Your task to perform on an android device: check the backup settings in the google photos Image 0: 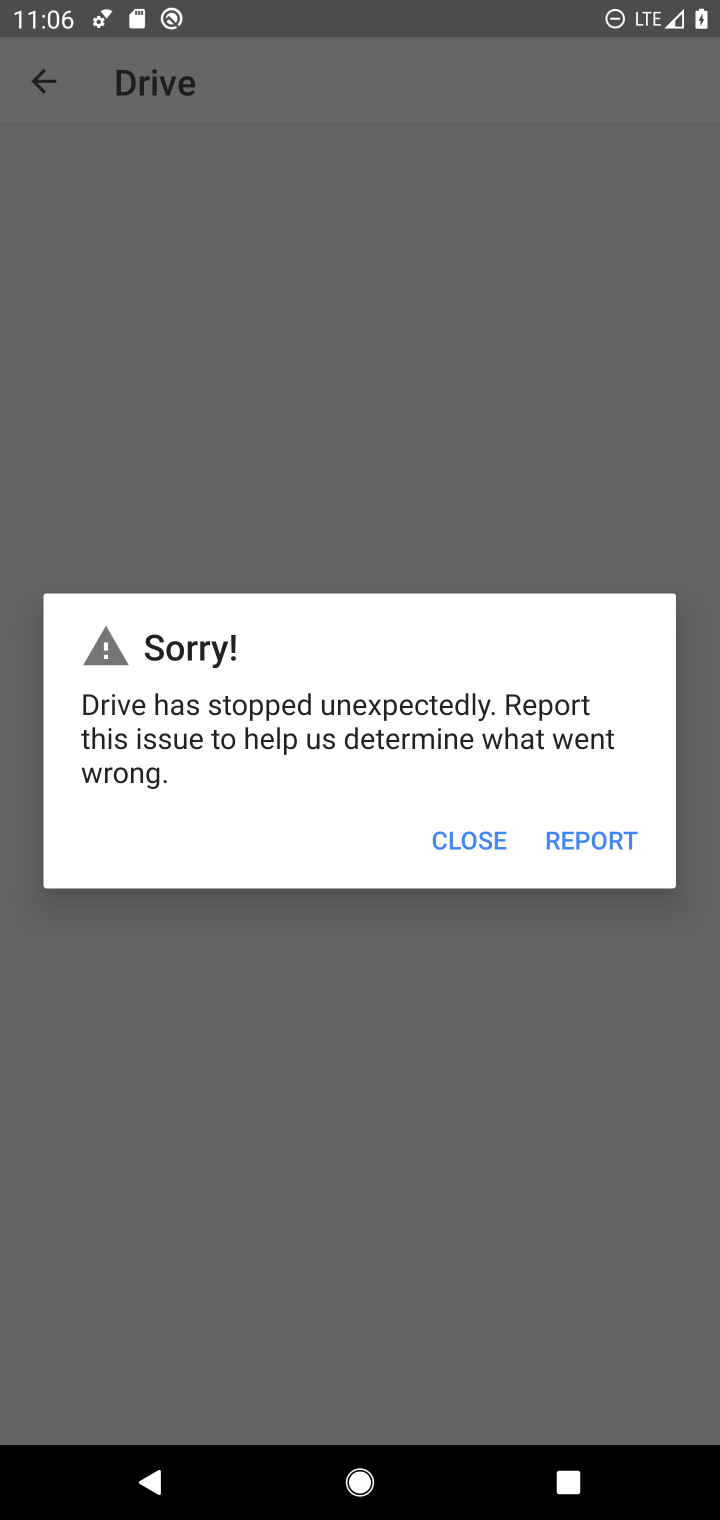
Step 0: press home button
Your task to perform on an android device: check the backup settings in the google photos Image 1: 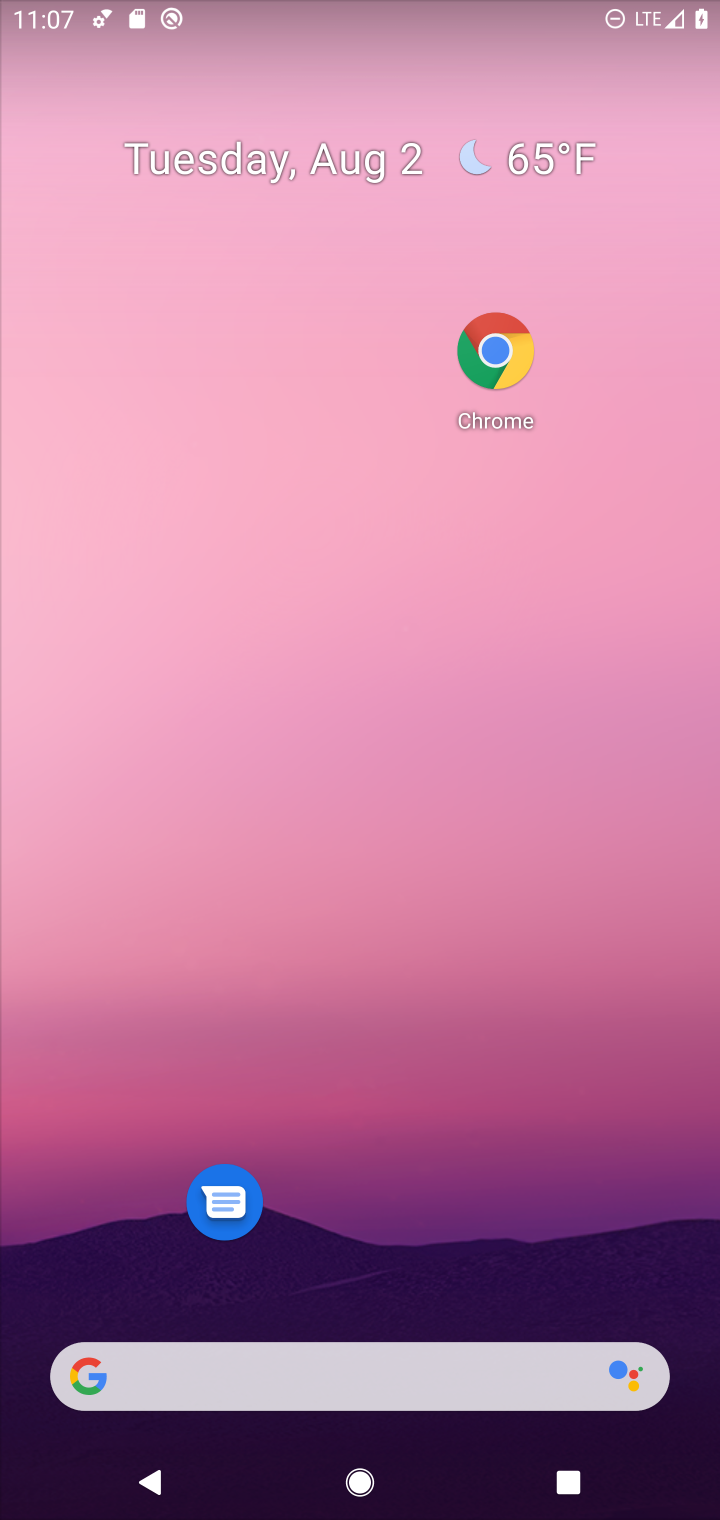
Step 1: drag from (374, 1219) to (302, 150)
Your task to perform on an android device: check the backup settings in the google photos Image 2: 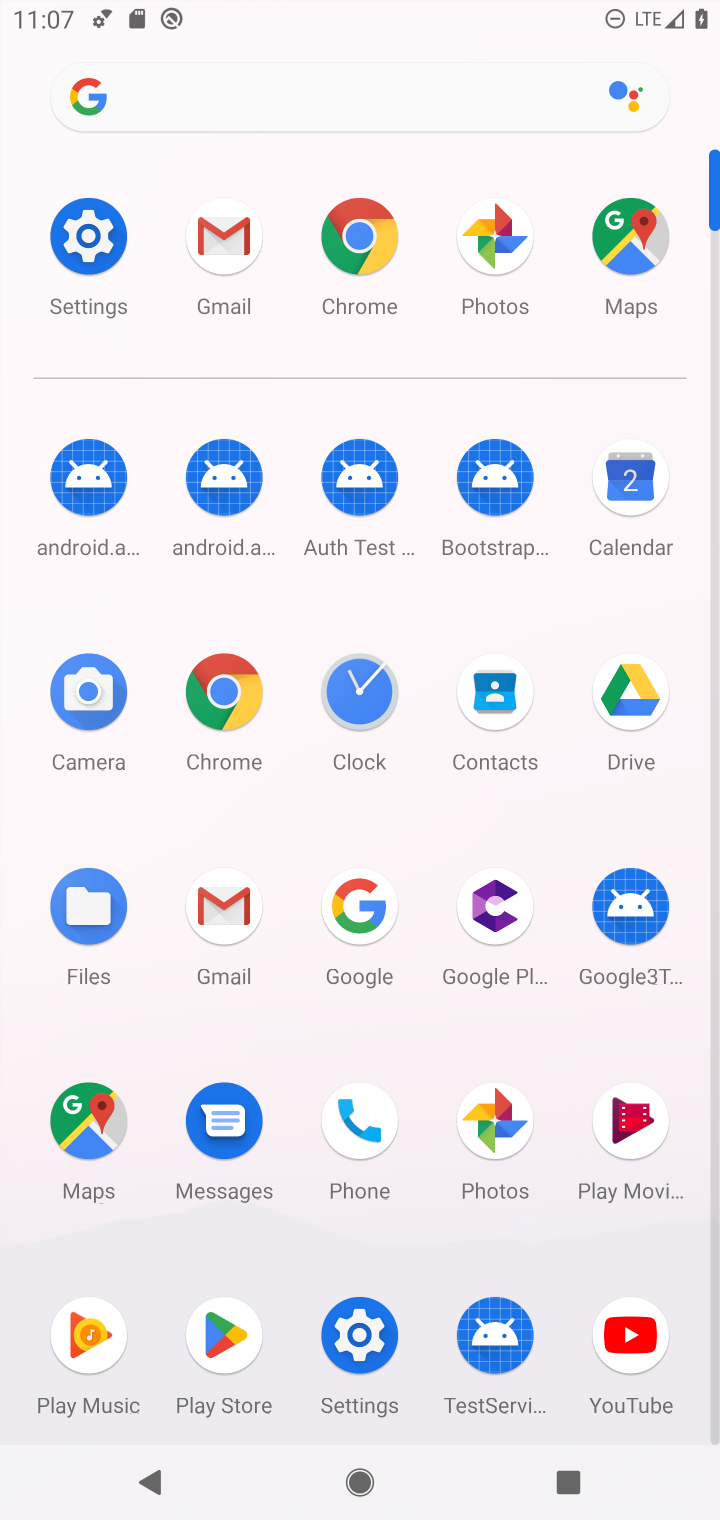
Step 2: click (498, 240)
Your task to perform on an android device: check the backup settings in the google photos Image 3: 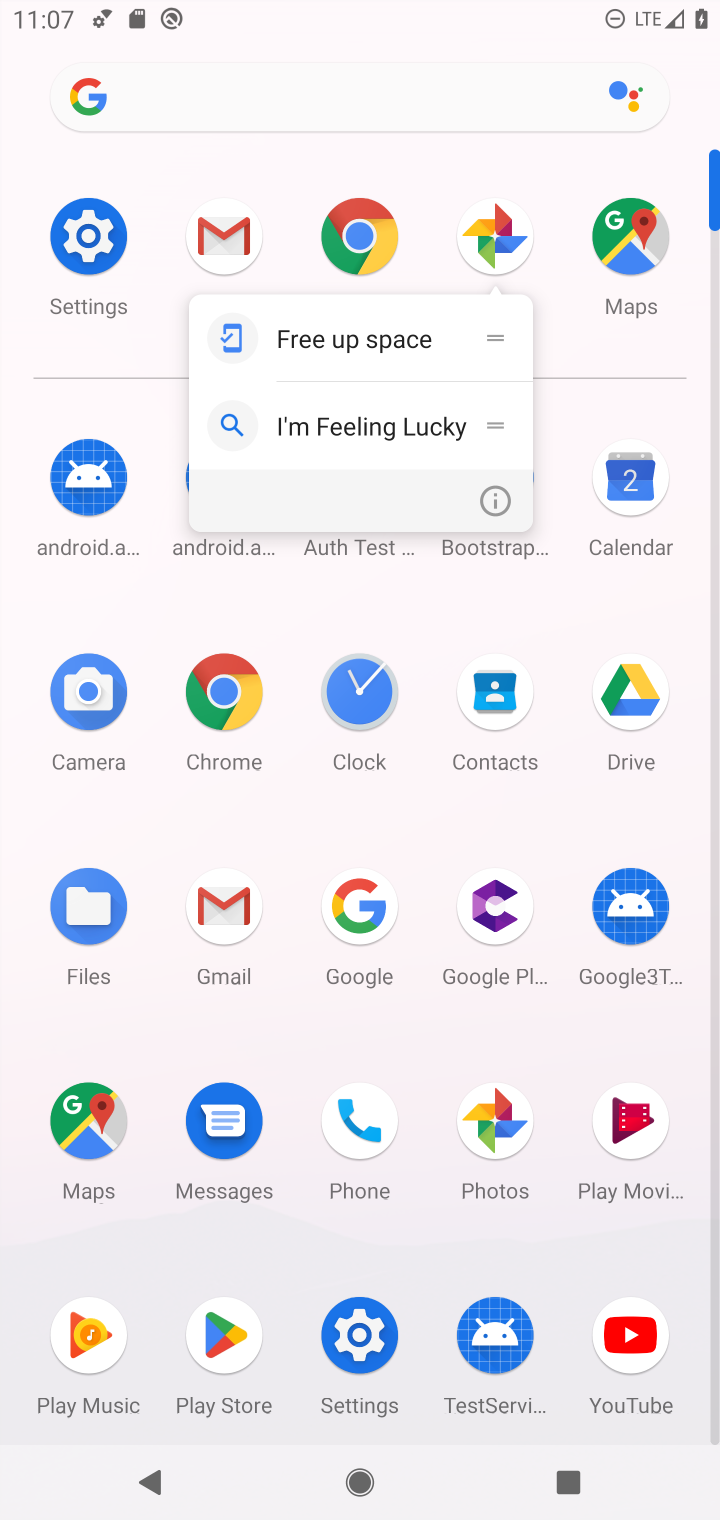
Step 3: click (498, 240)
Your task to perform on an android device: check the backup settings in the google photos Image 4: 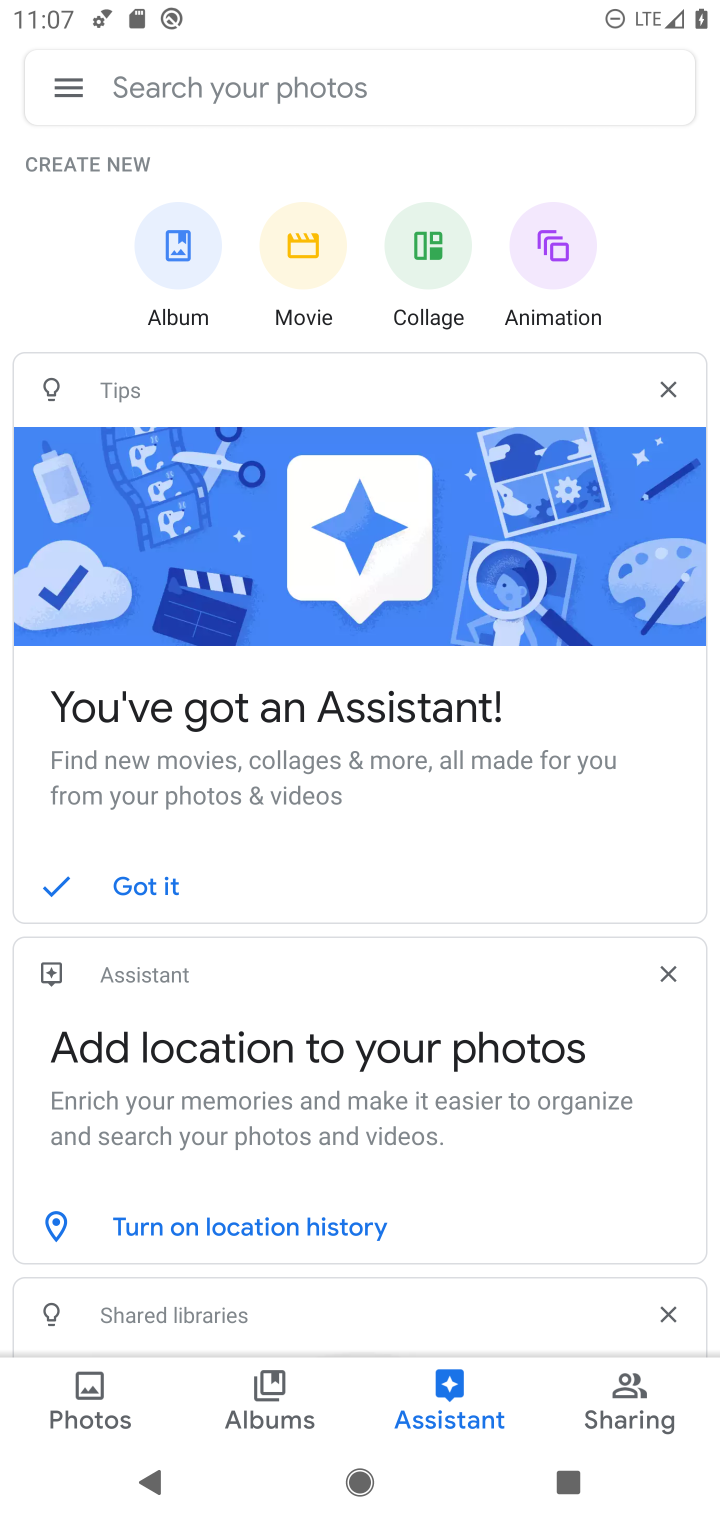
Step 4: click (68, 94)
Your task to perform on an android device: check the backup settings in the google photos Image 5: 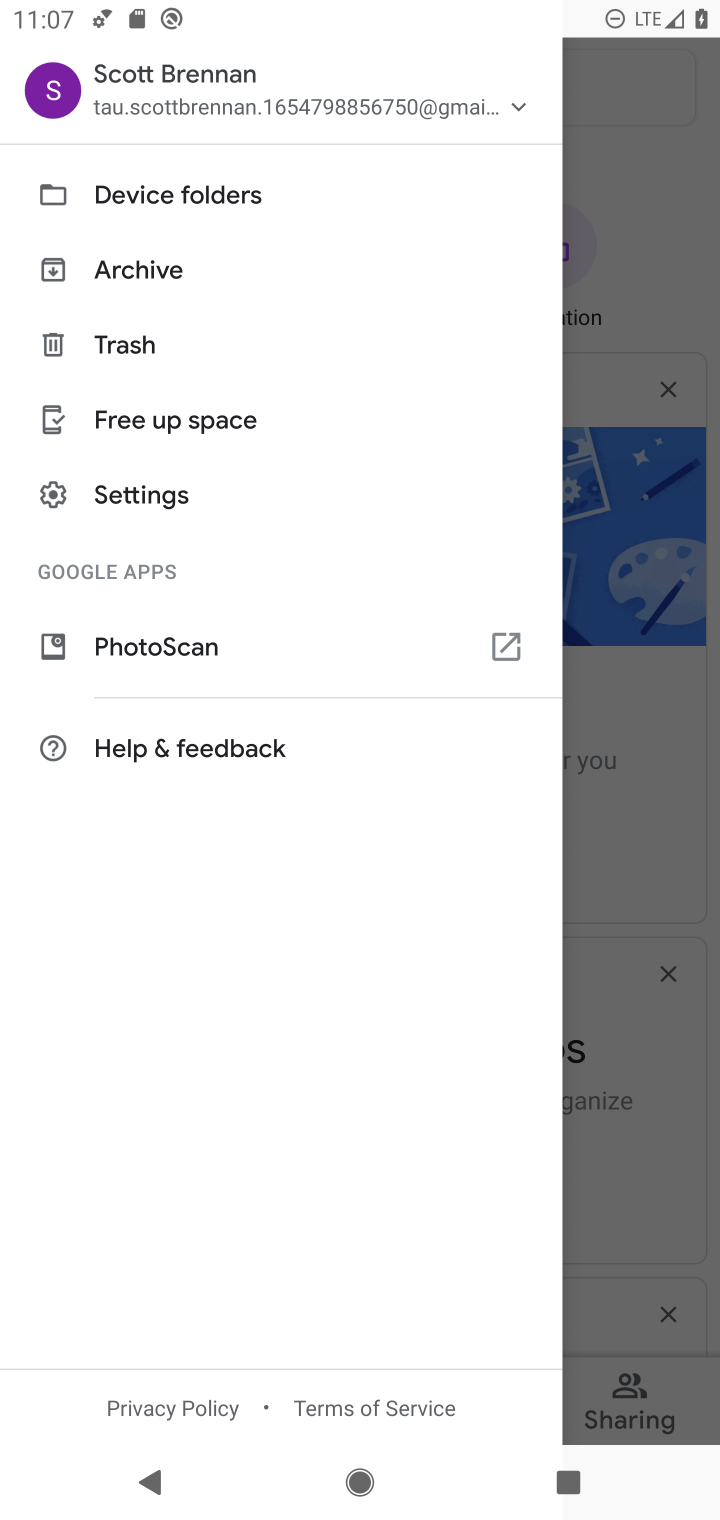
Step 5: click (122, 514)
Your task to perform on an android device: check the backup settings in the google photos Image 6: 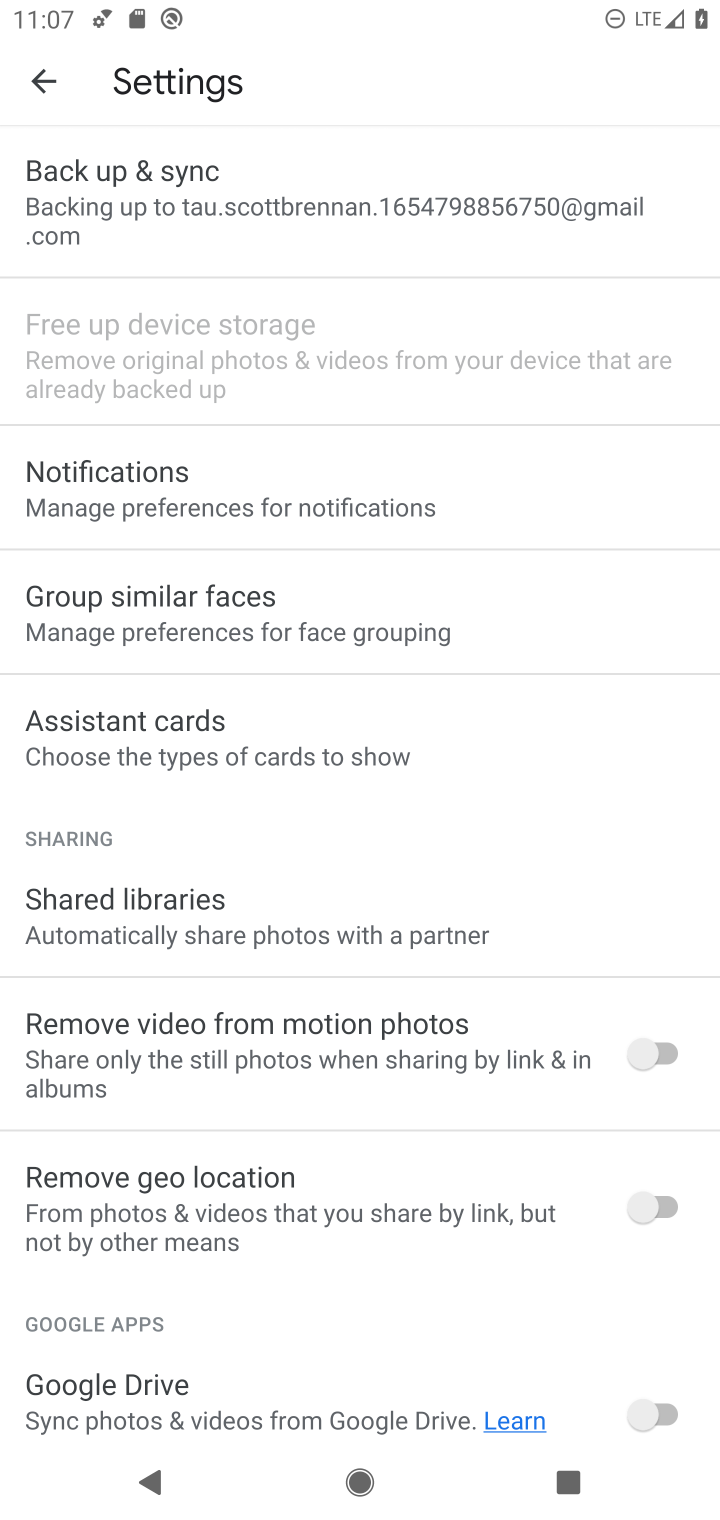
Step 6: click (133, 191)
Your task to perform on an android device: check the backup settings in the google photos Image 7: 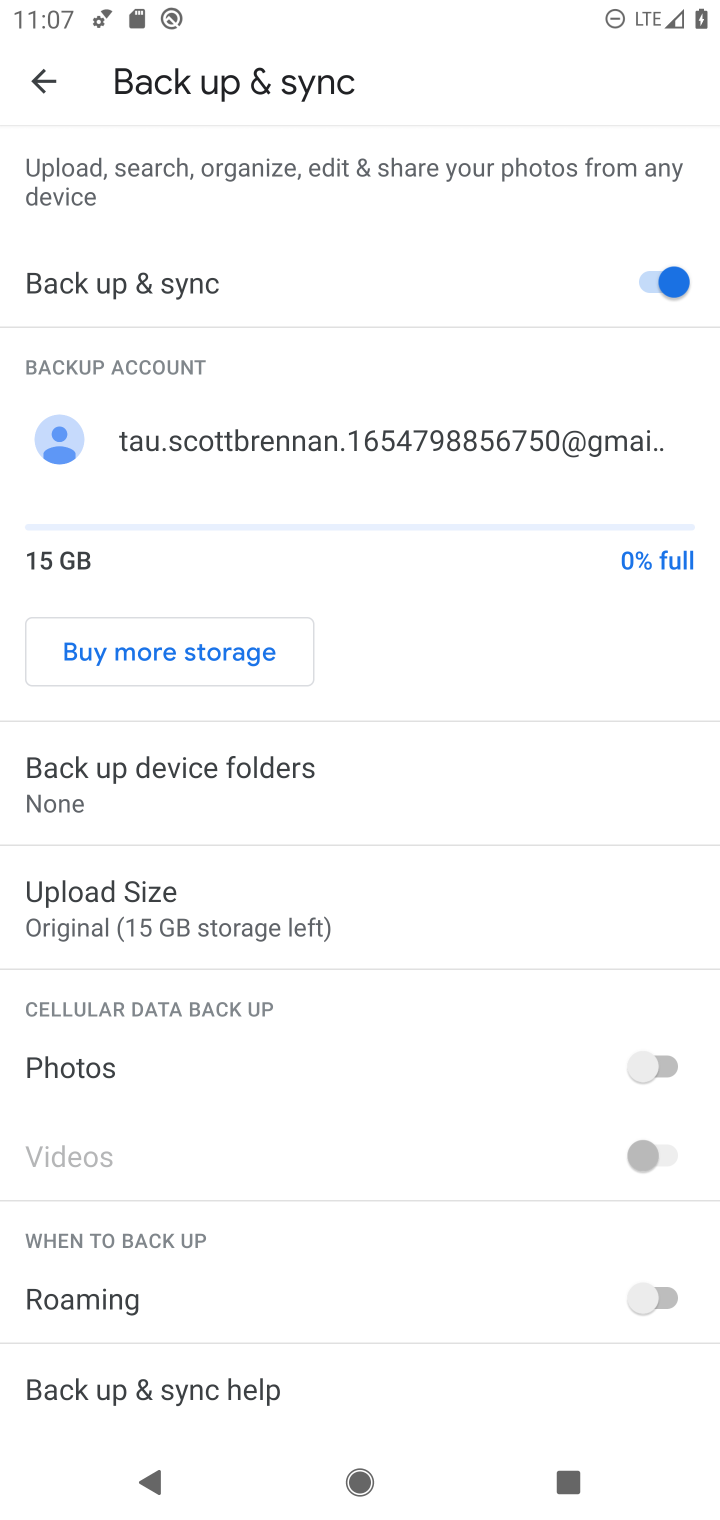
Step 7: task complete